Your task to perform on an android device: turn pop-ups on in chrome Image 0: 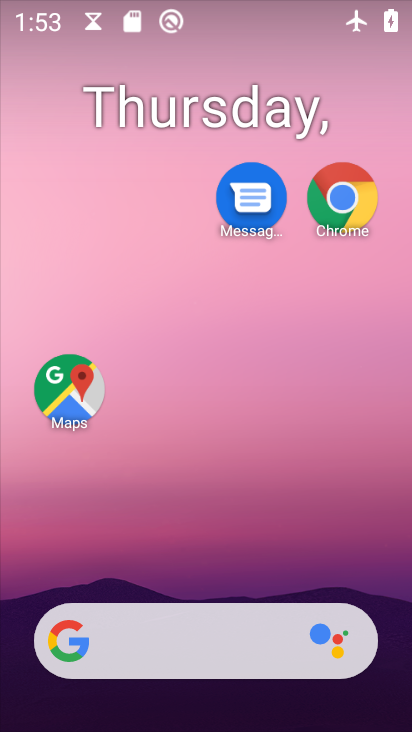
Step 0: click (336, 205)
Your task to perform on an android device: turn pop-ups on in chrome Image 1: 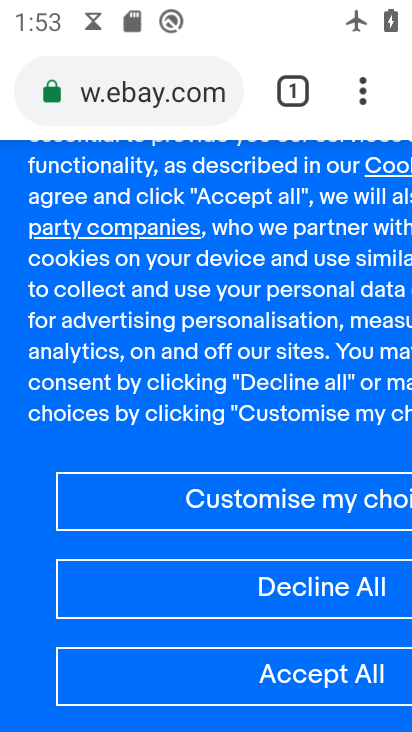
Step 1: press home button
Your task to perform on an android device: turn pop-ups on in chrome Image 2: 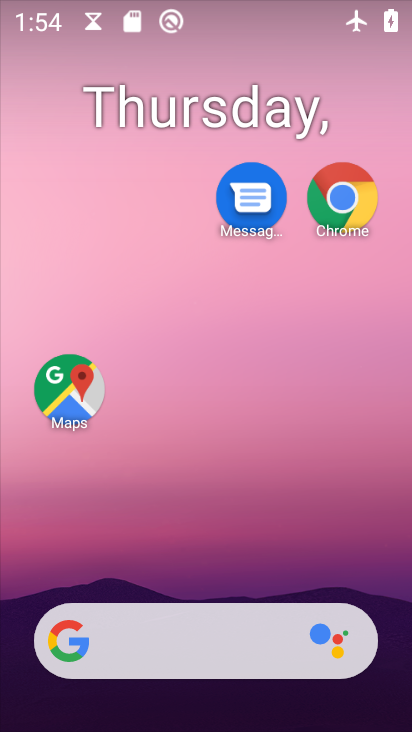
Step 2: drag from (238, 550) to (231, 5)
Your task to perform on an android device: turn pop-ups on in chrome Image 3: 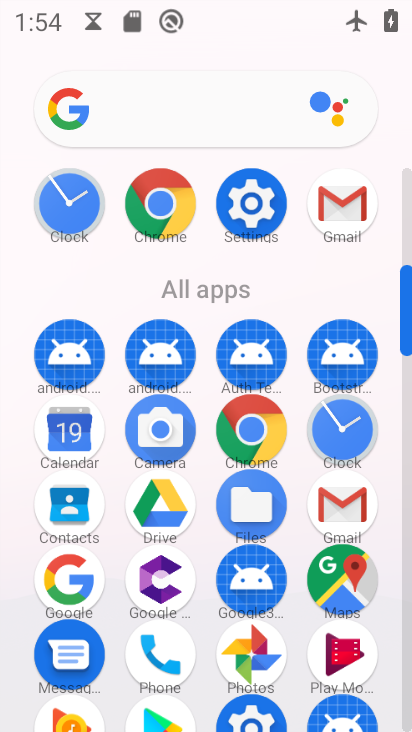
Step 3: click (162, 226)
Your task to perform on an android device: turn pop-ups on in chrome Image 4: 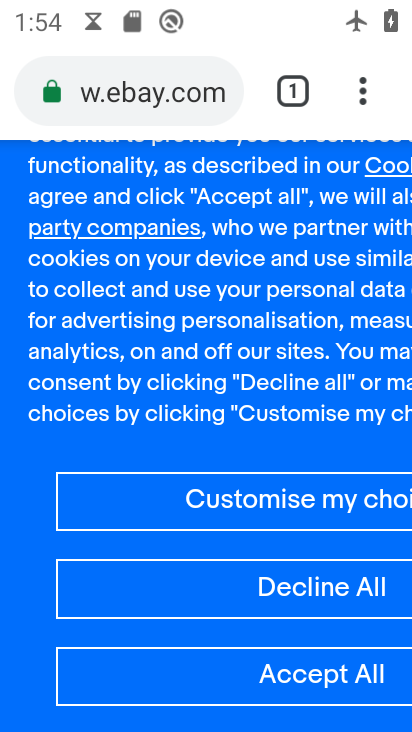
Step 4: click (376, 93)
Your task to perform on an android device: turn pop-ups on in chrome Image 5: 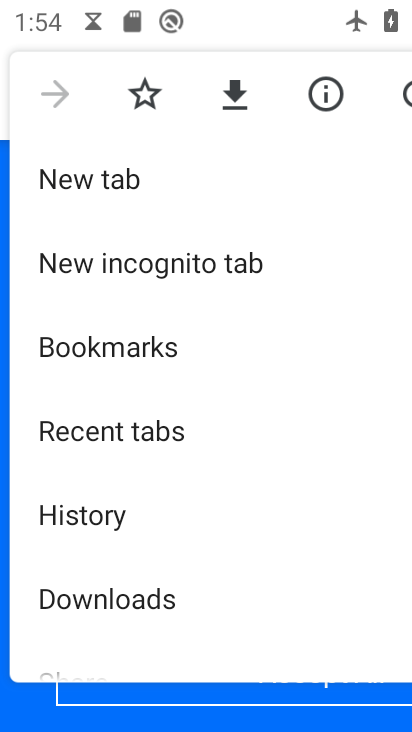
Step 5: drag from (140, 576) to (122, 225)
Your task to perform on an android device: turn pop-ups on in chrome Image 6: 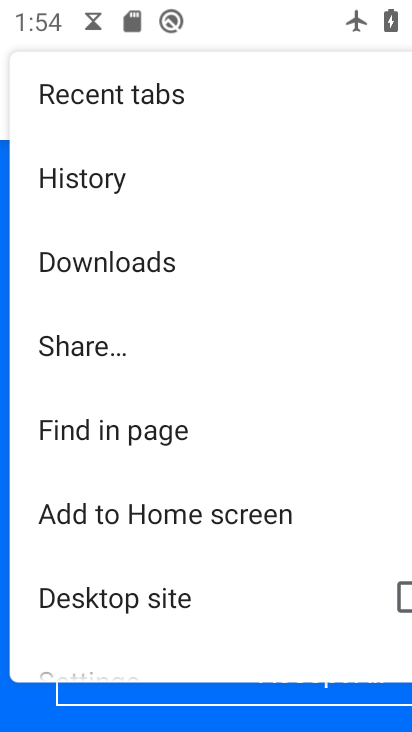
Step 6: drag from (132, 555) to (207, 175)
Your task to perform on an android device: turn pop-ups on in chrome Image 7: 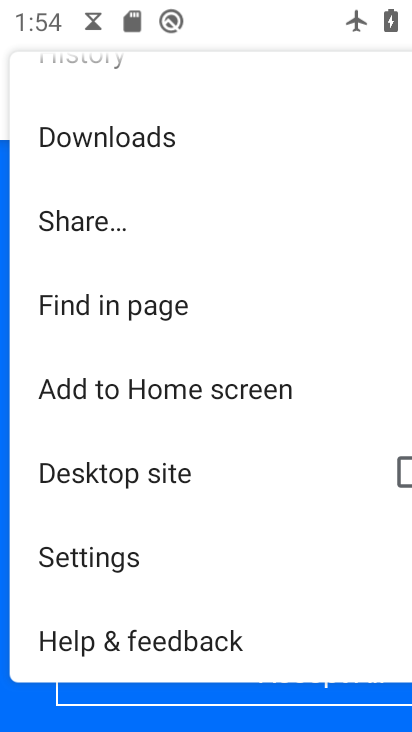
Step 7: click (105, 563)
Your task to perform on an android device: turn pop-ups on in chrome Image 8: 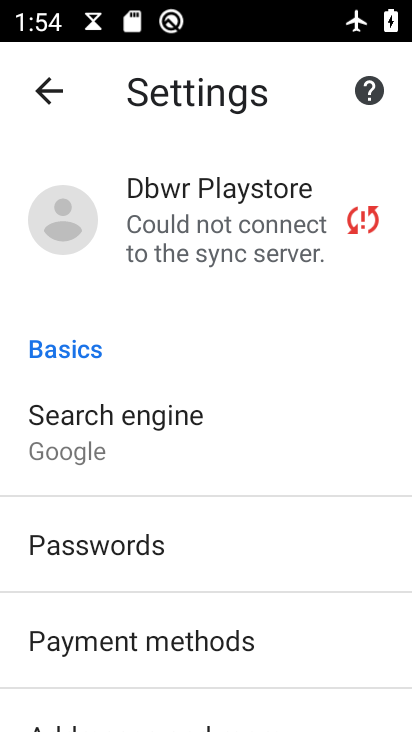
Step 8: drag from (217, 420) to (258, 170)
Your task to perform on an android device: turn pop-ups on in chrome Image 9: 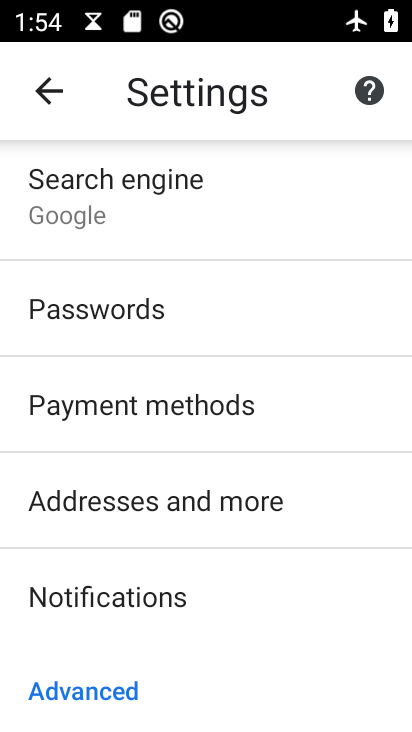
Step 9: drag from (195, 285) to (203, 251)
Your task to perform on an android device: turn pop-ups on in chrome Image 10: 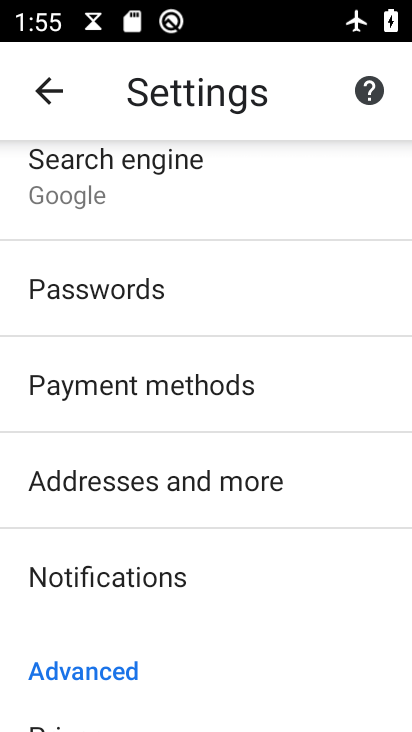
Step 10: click (148, 254)
Your task to perform on an android device: turn pop-ups on in chrome Image 11: 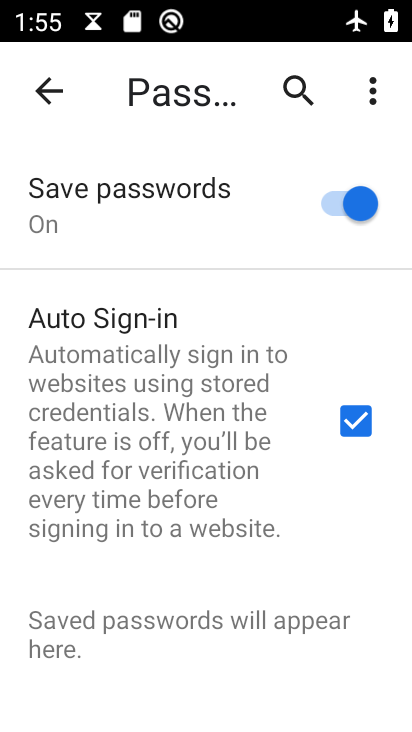
Step 11: click (41, 94)
Your task to perform on an android device: turn pop-ups on in chrome Image 12: 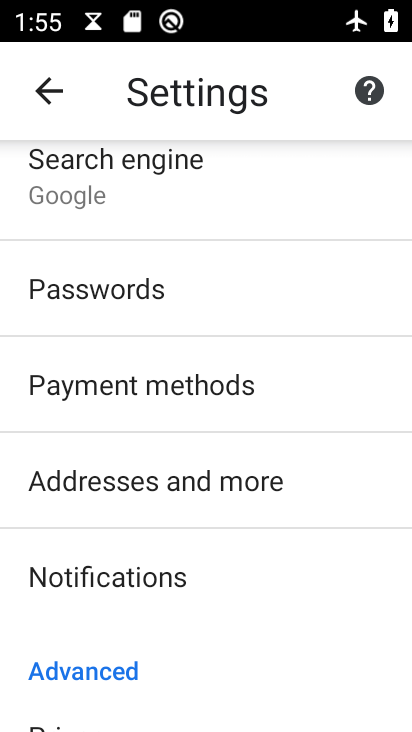
Step 12: drag from (125, 591) to (133, 270)
Your task to perform on an android device: turn pop-ups on in chrome Image 13: 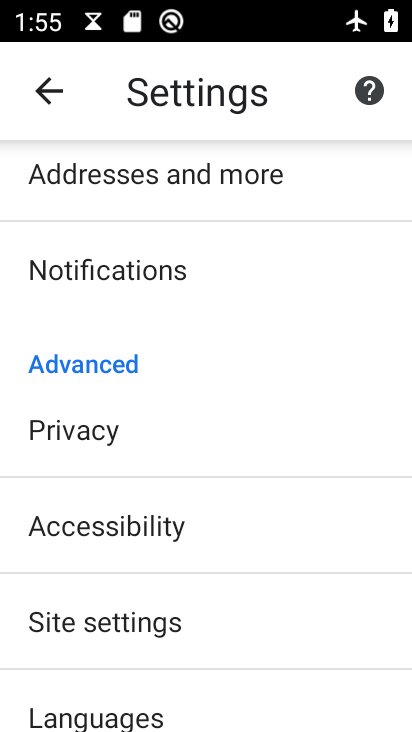
Step 13: drag from (159, 644) to (159, 302)
Your task to perform on an android device: turn pop-ups on in chrome Image 14: 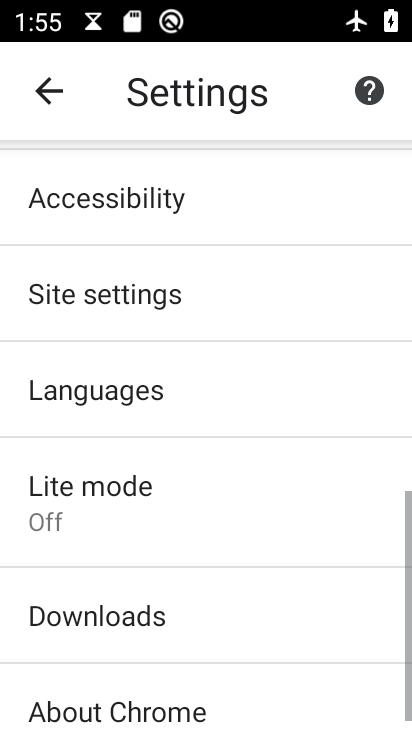
Step 14: click (93, 615)
Your task to perform on an android device: turn pop-ups on in chrome Image 15: 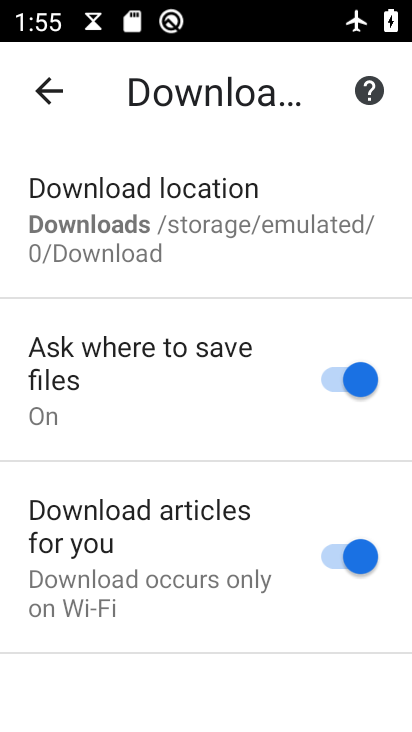
Step 15: click (42, 89)
Your task to perform on an android device: turn pop-ups on in chrome Image 16: 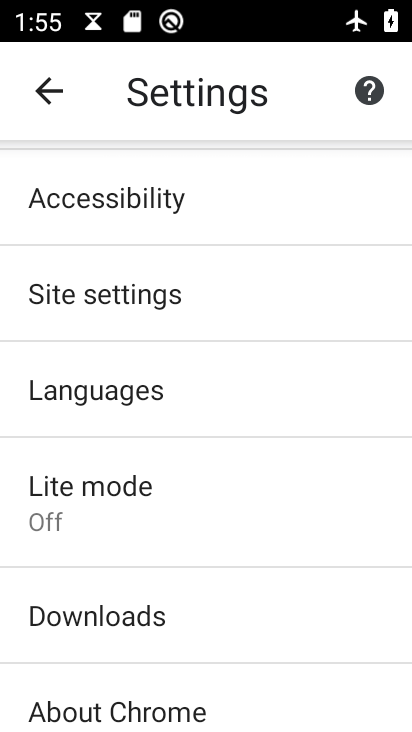
Step 16: click (107, 308)
Your task to perform on an android device: turn pop-ups on in chrome Image 17: 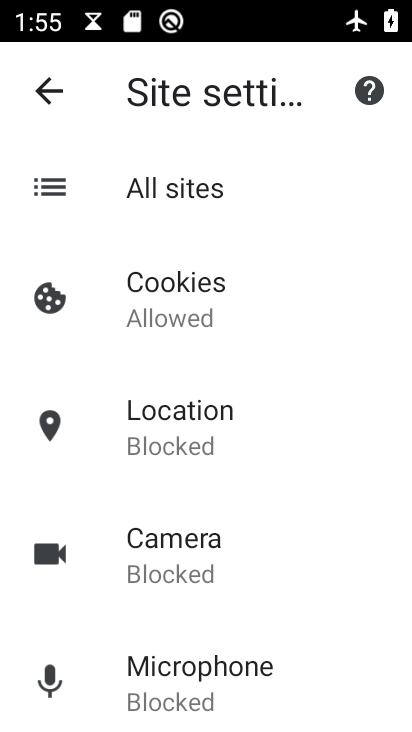
Step 17: drag from (191, 587) to (203, 191)
Your task to perform on an android device: turn pop-ups on in chrome Image 18: 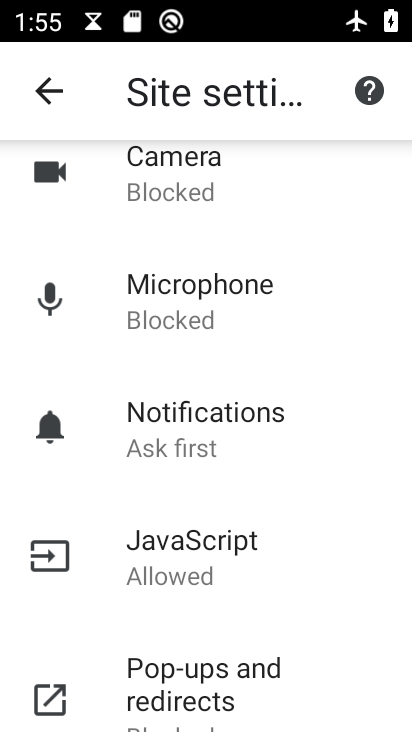
Step 18: click (187, 693)
Your task to perform on an android device: turn pop-ups on in chrome Image 19: 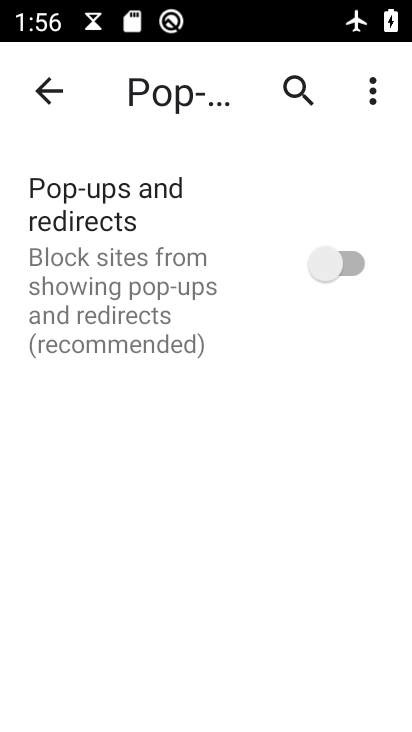
Step 19: click (340, 269)
Your task to perform on an android device: turn pop-ups on in chrome Image 20: 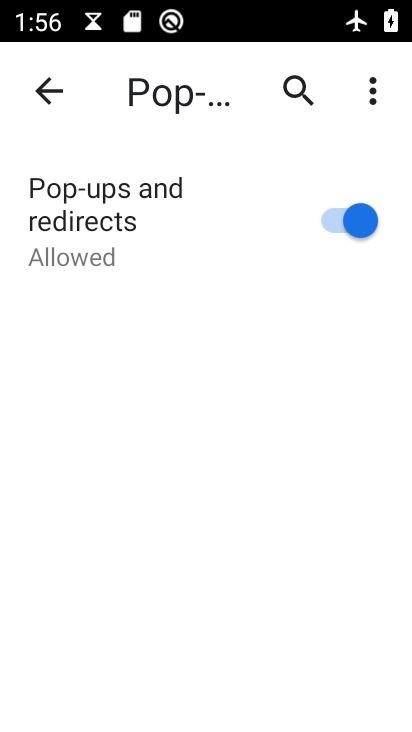
Step 20: task complete